Your task to perform on an android device: add a label to a message in the gmail app Image 0: 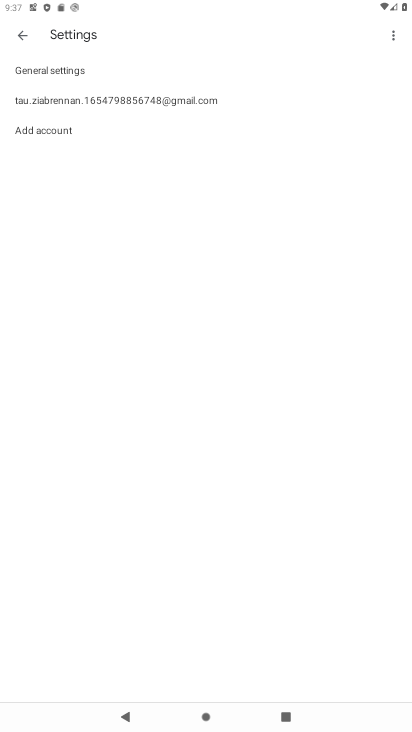
Step 0: press home button
Your task to perform on an android device: add a label to a message in the gmail app Image 1: 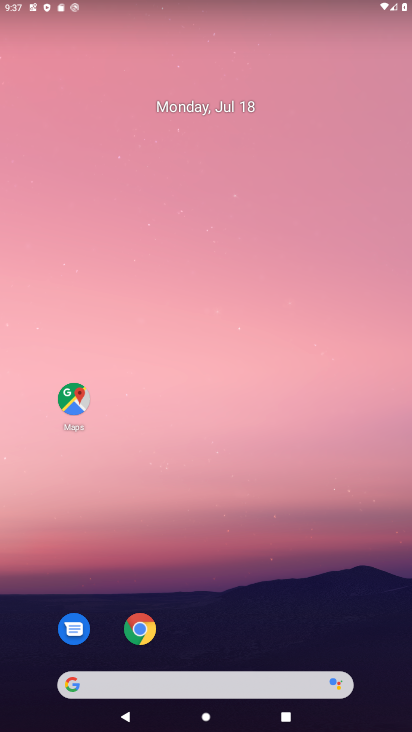
Step 1: drag from (307, 672) to (71, 114)
Your task to perform on an android device: add a label to a message in the gmail app Image 2: 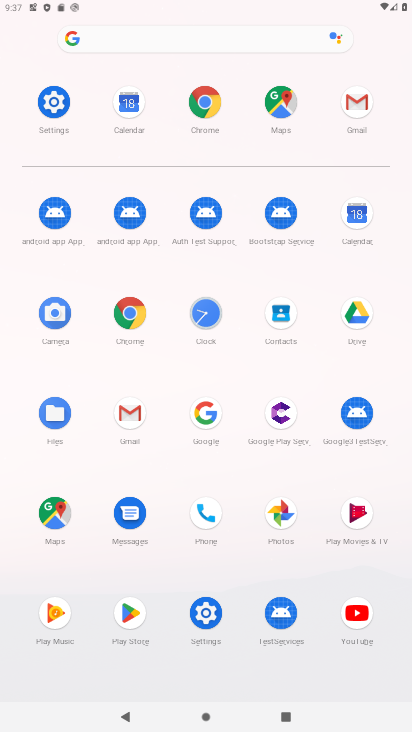
Step 2: click (355, 106)
Your task to perform on an android device: add a label to a message in the gmail app Image 3: 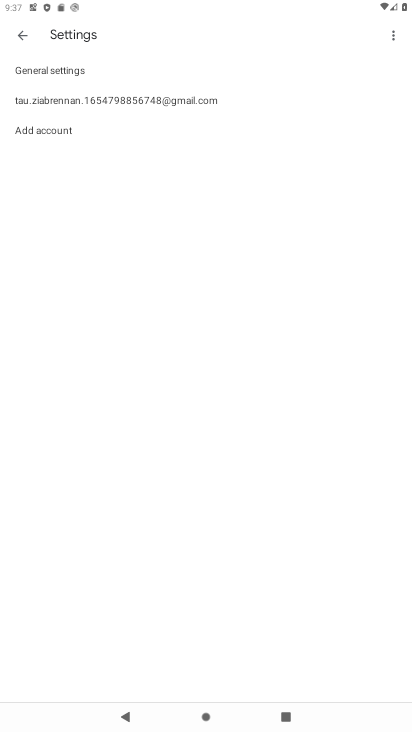
Step 3: click (25, 37)
Your task to perform on an android device: add a label to a message in the gmail app Image 4: 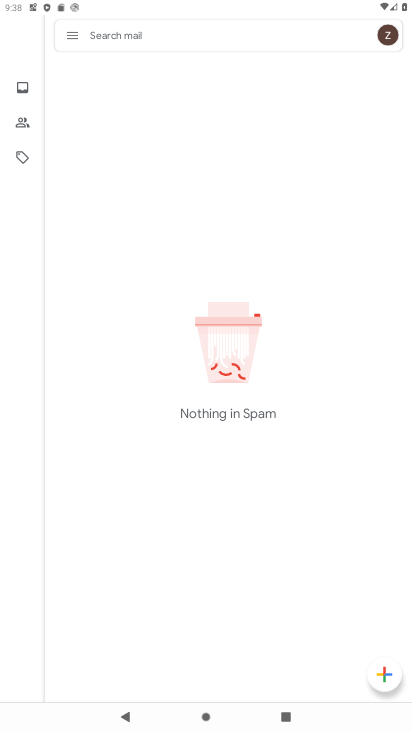
Step 4: click (62, 31)
Your task to perform on an android device: add a label to a message in the gmail app Image 5: 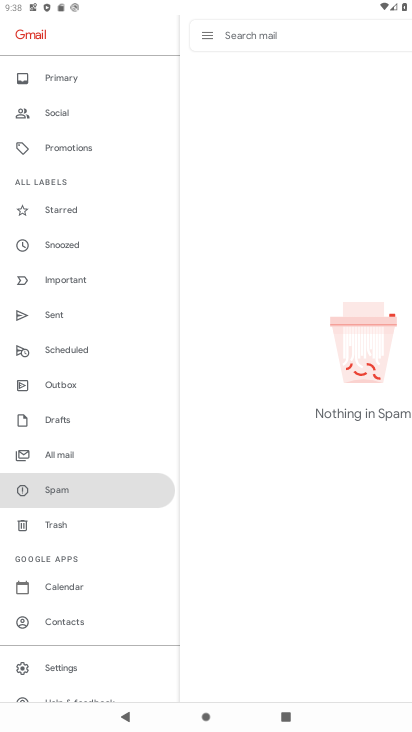
Step 5: click (53, 464)
Your task to perform on an android device: add a label to a message in the gmail app Image 6: 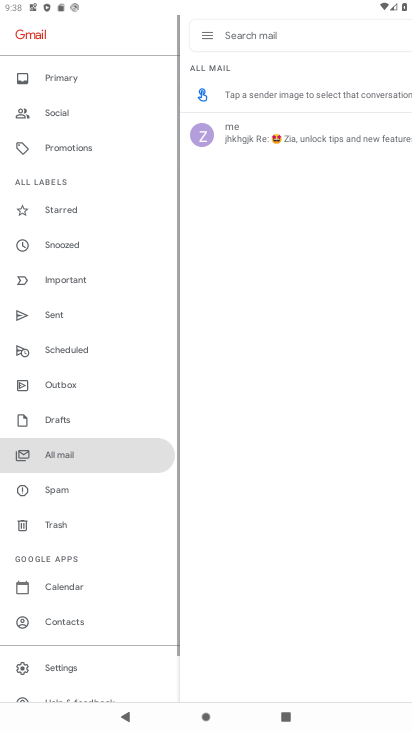
Step 6: task complete